Your task to perform on an android device: turn on data saver in the chrome app Image 0: 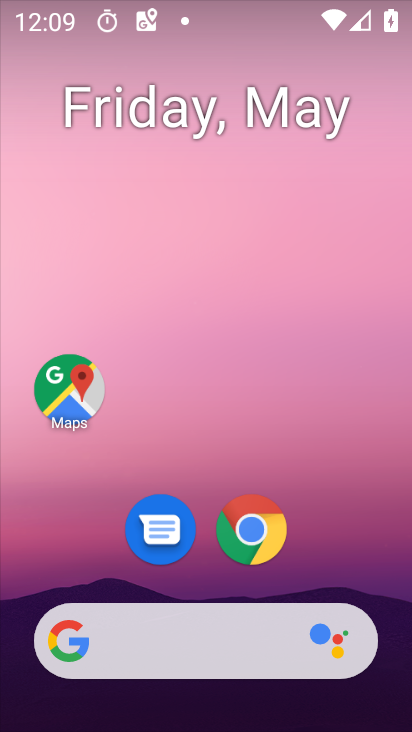
Step 0: drag from (273, 581) to (379, 12)
Your task to perform on an android device: turn on data saver in the chrome app Image 1: 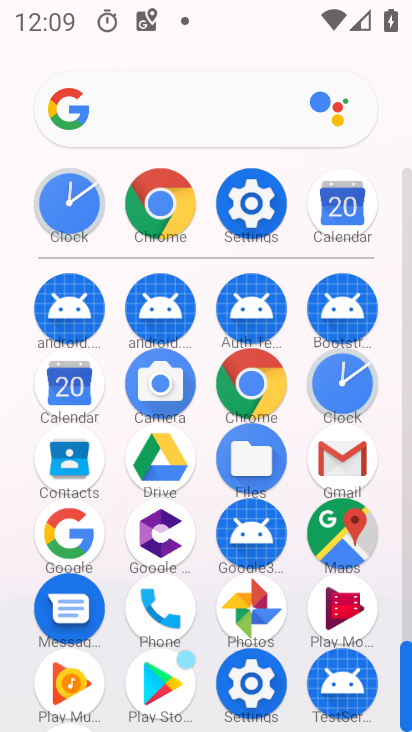
Step 1: click (256, 390)
Your task to perform on an android device: turn on data saver in the chrome app Image 2: 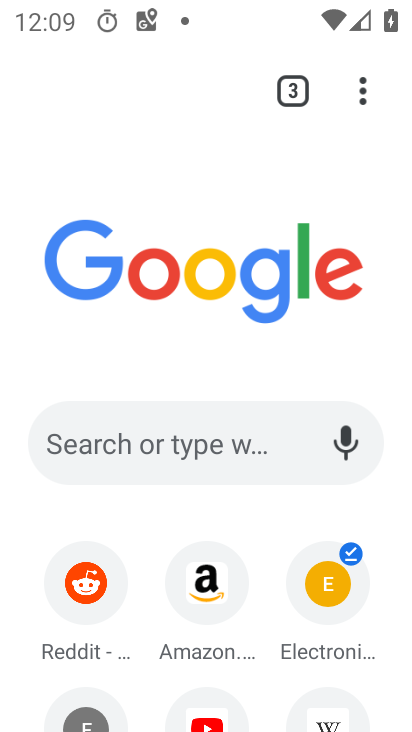
Step 2: click (362, 106)
Your task to perform on an android device: turn on data saver in the chrome app Image 3: 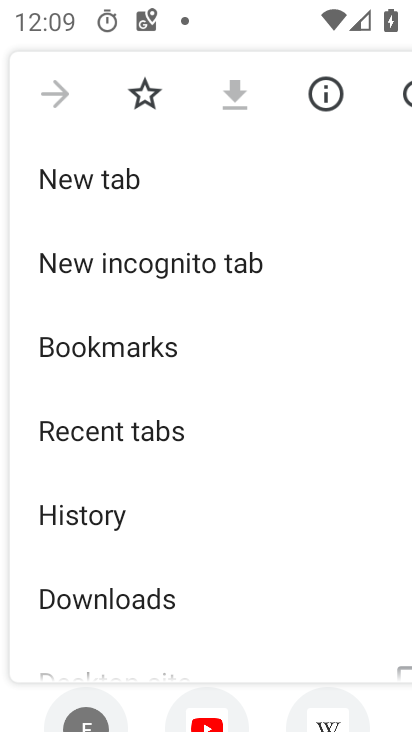
Step 3: drag from (250, 513) to (249, 86)
Your task to perform on an android device: turn on data saver in the chrome app Image 4: 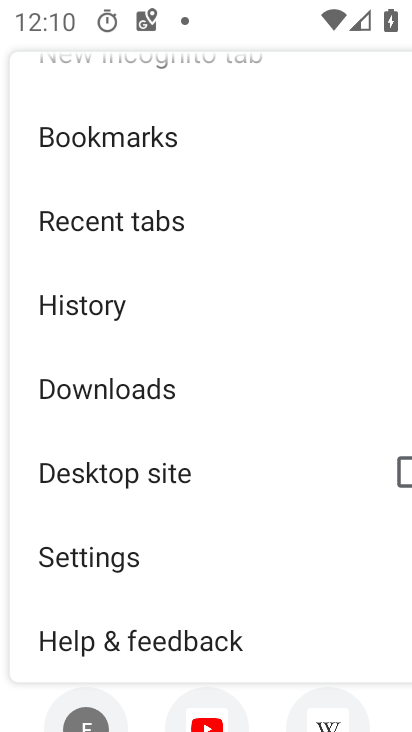
Step 4: click (110, 561)
Your task to perform on an android device: turn on data saver in the chrome app Image 5: 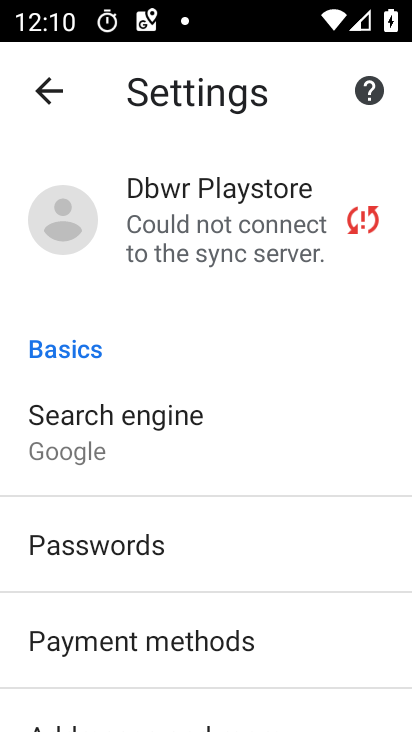
Step 5: drag from (151, 594) to (167, 78)
Your task to perform on an android device: turn on data saver in the chrome app Image 6: 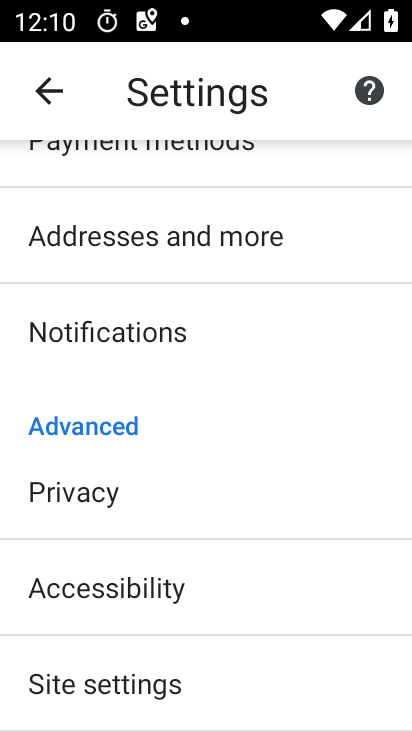
Step 6: drag from (207, 587) to (295, 146)
Your task to perform on an android device: turn on data saver in the chrome app Image 7: 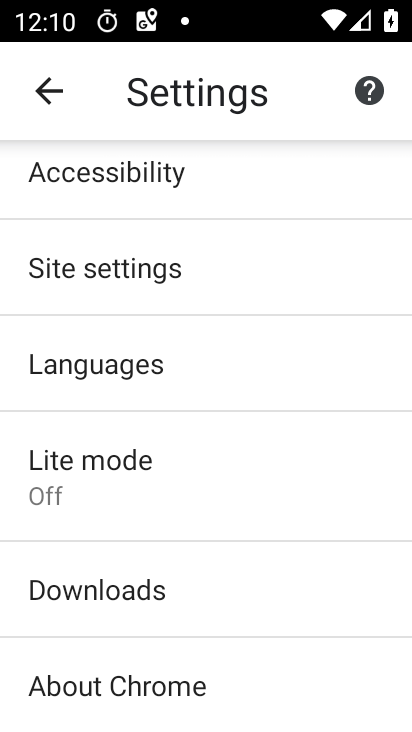
Step 7: drag from (177, 587) to (191, 314)
Your task to perform on an android device: turn on data saver in the chrome app Image 8: 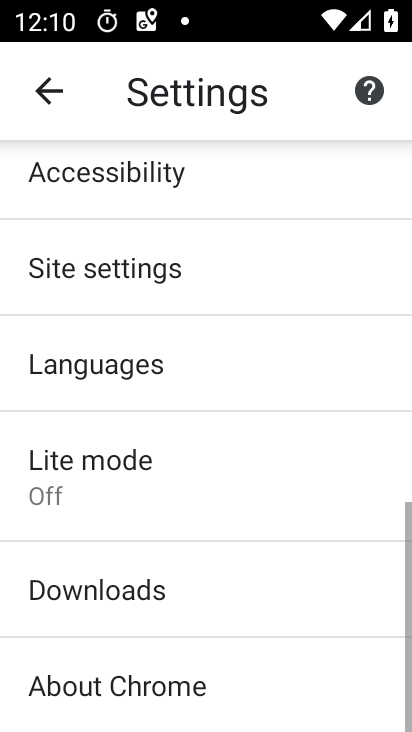
Step 8: click (145, 483)
Your task to perform on an android device: turn on data saver in the chrome app Image 9: 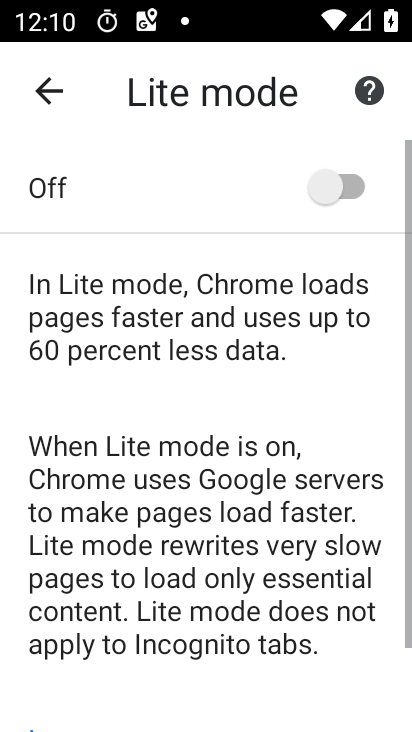
Step 9: click (333, 193)
Your task to perform on an android device: turn on data saver in the chrome app Image 10: 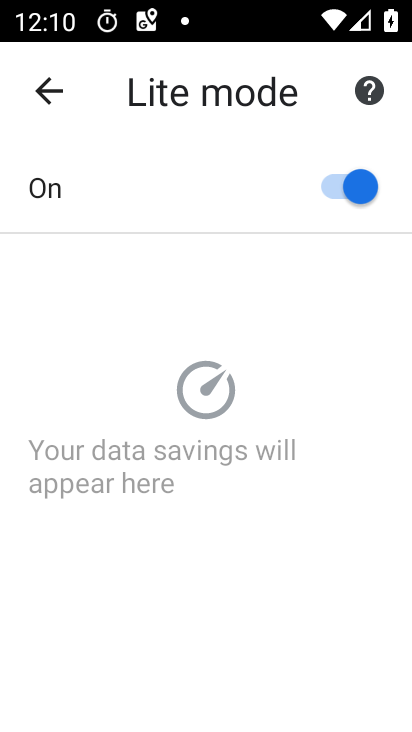
Step 10: task complete